Your task to perform on an android device: turn on priority inbox in the gmail app Image 0: 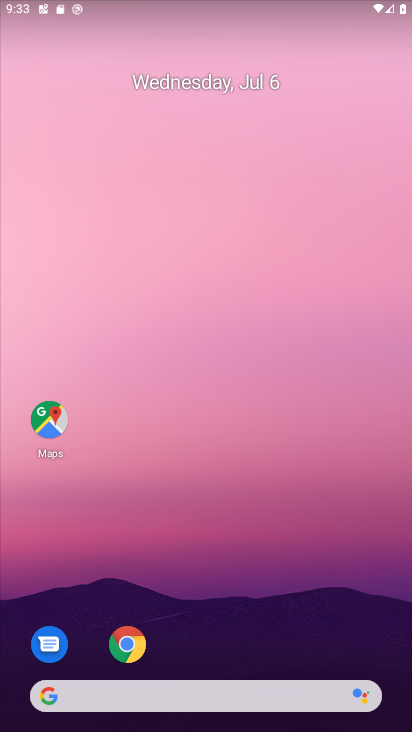
Step 0: drag from (235, 645) to (234, 188)
Your task to perform on an android device: turn on priority inbox in the gmail app Image 1: 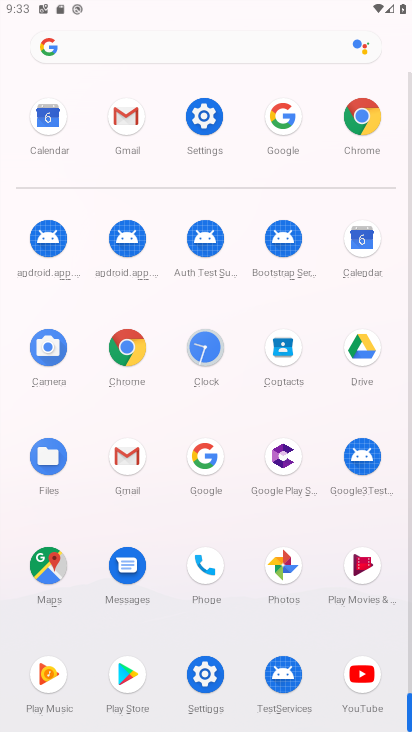
Step 1: click (139, 471)
Your task to perform on an android device: turn on priority inbox in the gmail app Image 2: 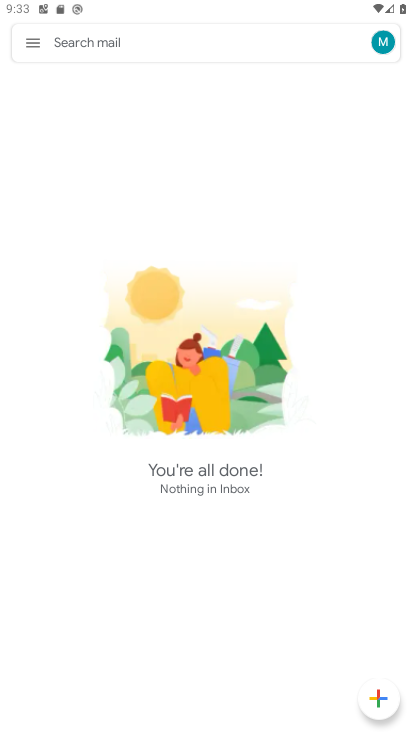
Step 2: drag from (145, 585) to (153, 465)
Your task to perform on an android device: turn on priority inbox in the gmail app Image 3: 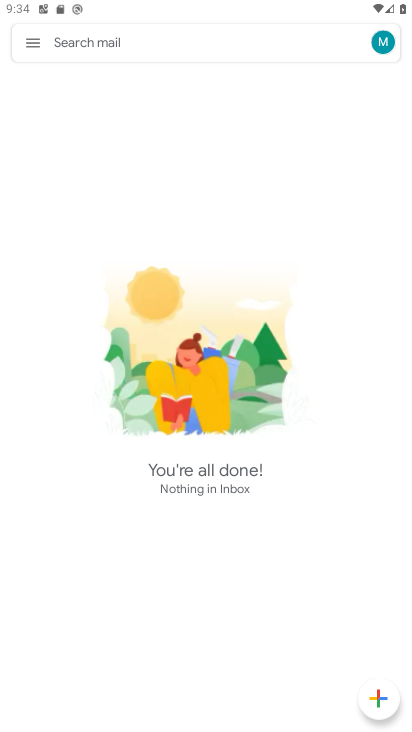
Step 3: drag from (154, 503) to (147, 340)
Your task to perform on an android device: turn on priority inbox in the gmail app Image 4: 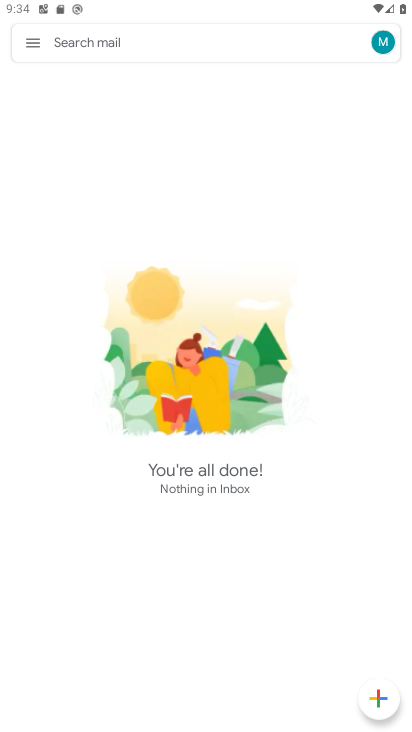
Step 4: click (33, 34)
Your task to perform on an android device: turn on priority inbox in the gmail app Image 5: 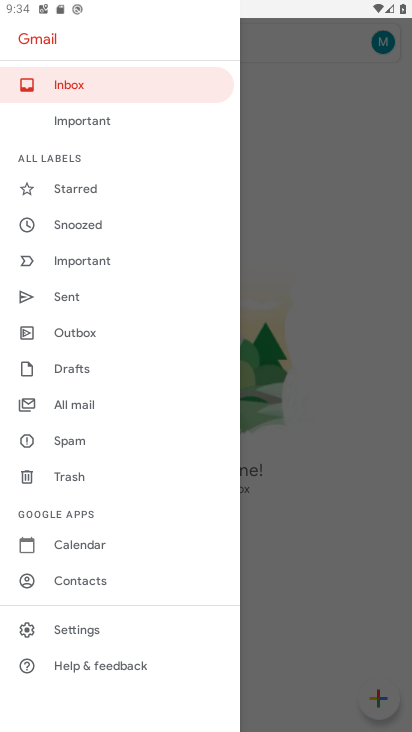
Step 5: click (81, 625)
Your task to perform on an android device: turn on priority inbox in the gmail app Image 6: 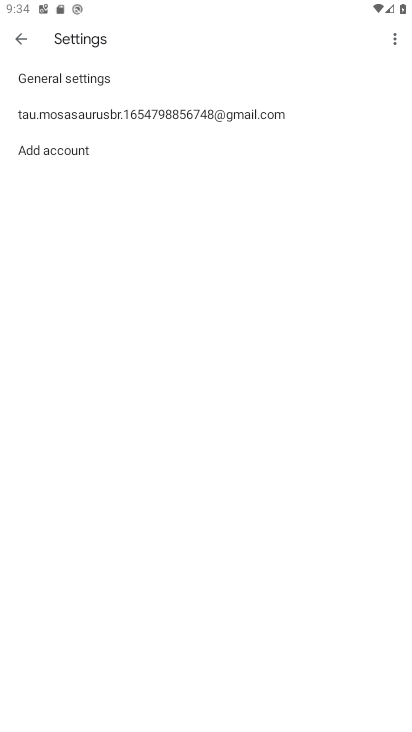
Step 6: click (201, 114)
Your task to perform on an android device: turn on priority inbox in the gmail app Image 7: 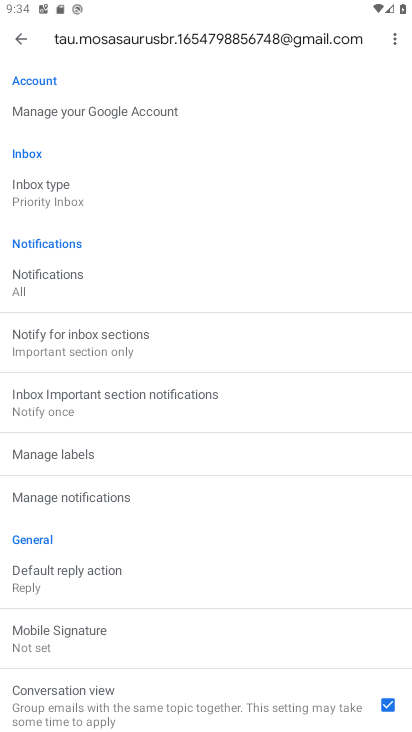
Step 7: click (73, 195)
Your task to perform on an android device: turn on priority inbox in the gmail app Image 8: 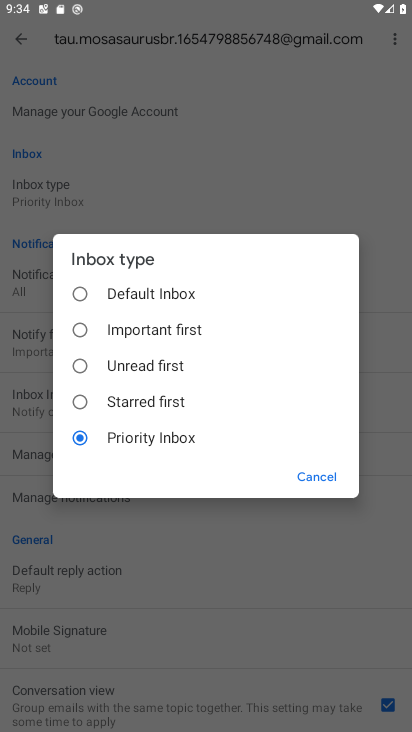
Step 8: click (137, 444)
Your task to perform on an android device: turn on priority inbox in the gmail app Image 9: 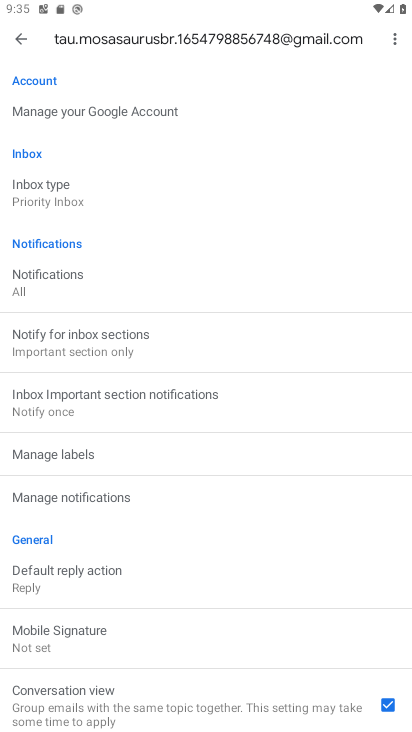
Step 9: task complete